Your task to perform on an android device: turn on translation in the chrome app Image 0: 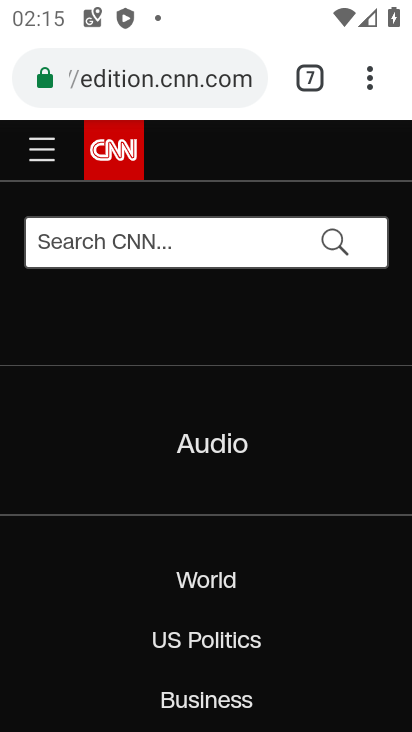
Step 0: press home button
Your task to perform on an android device: turn on translation in the chrome app Image 1: 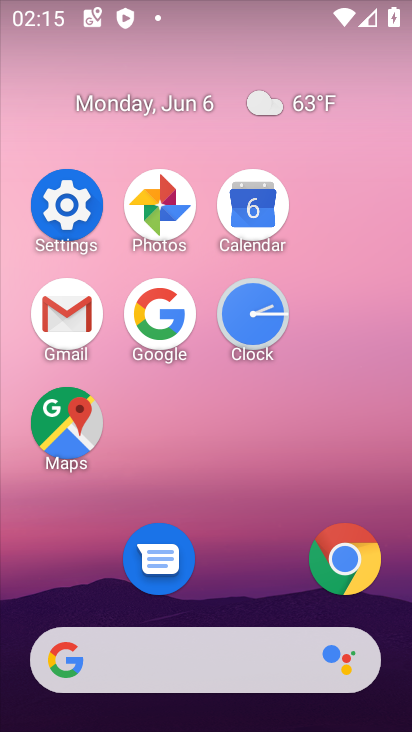
Step 1: click (332, 526)
Your task to perform on an android device: turn on translation in the chrome app Image 2: 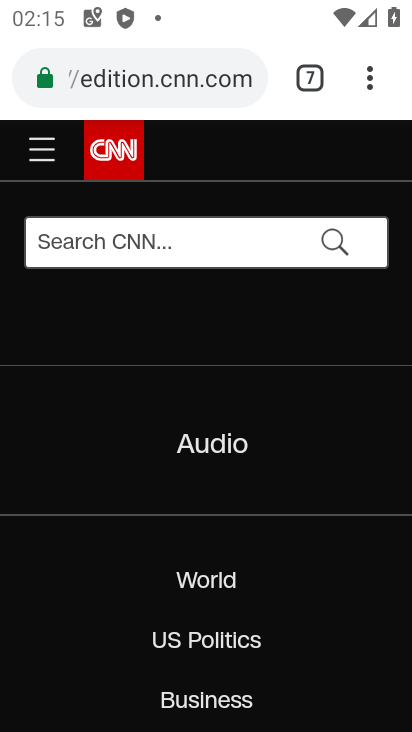
Step 2: click (382, 69)
Your task to perform on an android device: turn on translation in the chrome app Image 3: 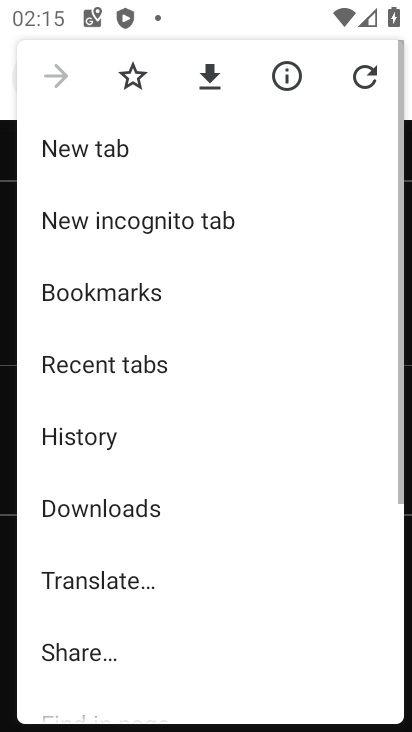
Step 3: drag from (150, 624) to (220, 193)
Your task to perform on an android device: turn on translation in the chrome app Image 4: 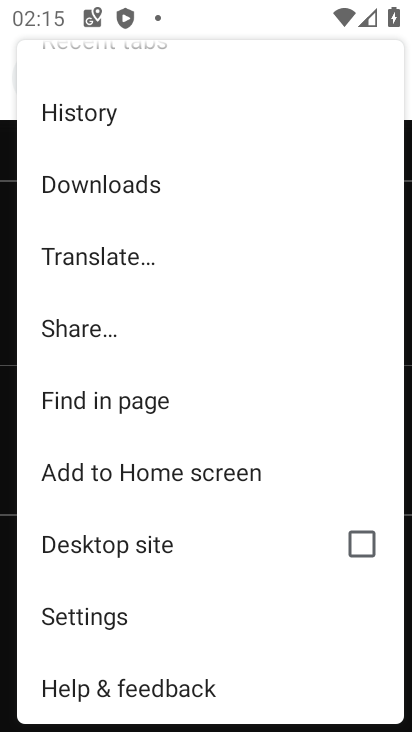
Step 4: click (128, 628)
Your task to perform on an android device: turn on translation in the chrome app Image 5: 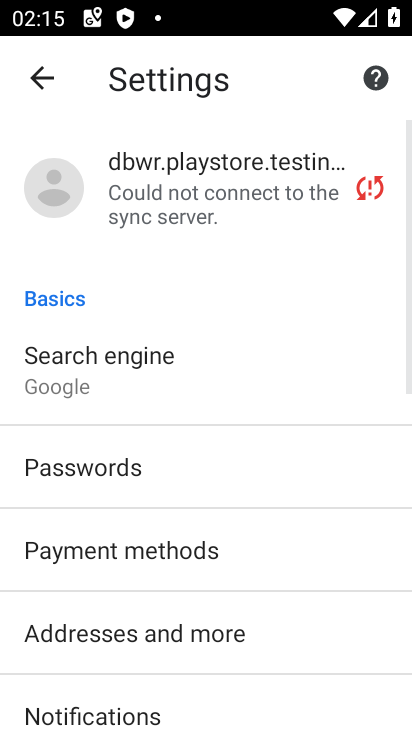
Step 5: drag from (128, 628) to (179, 260)
Your task to perform on an android device: turn on translation in the chrome app Image 6: 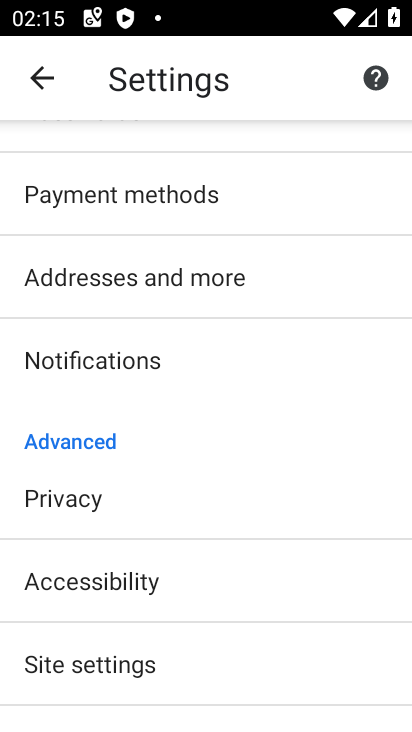
Step 6: drag from (229, 611) to (295, 253)
Your task to perform on an android device: turn on translation in the chrome app Image 7: 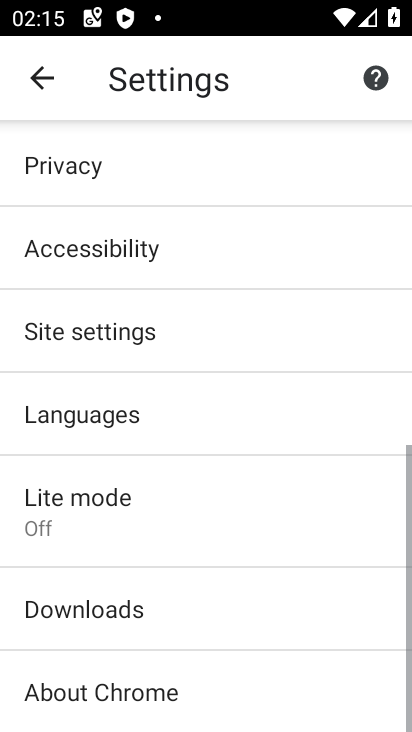
Step 7: click (114, 417)
Your task to perform on an android device: turn on translation in the chrome app Image 8: 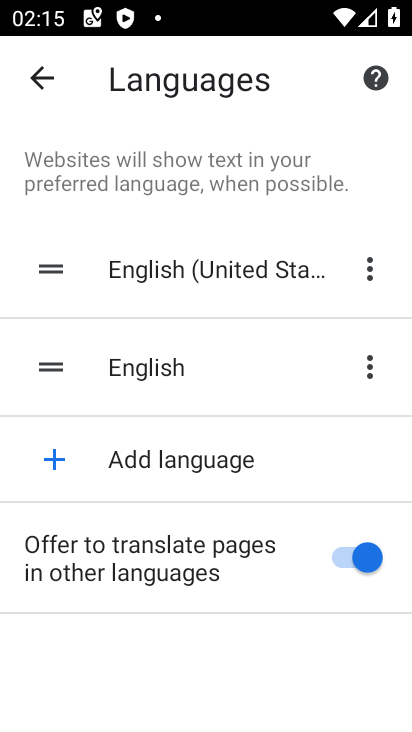
Step 8: task complete